Your task to perform on an android device: check google app version Image 0: 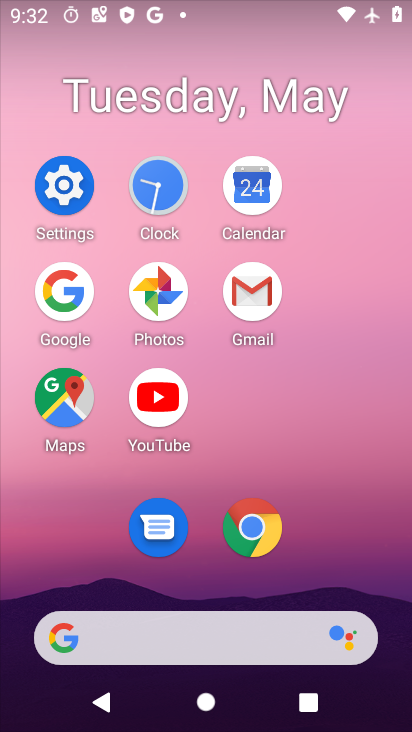
Step 0: click (76, 291)
Your task to perform on an android device: check google app version Image 1: 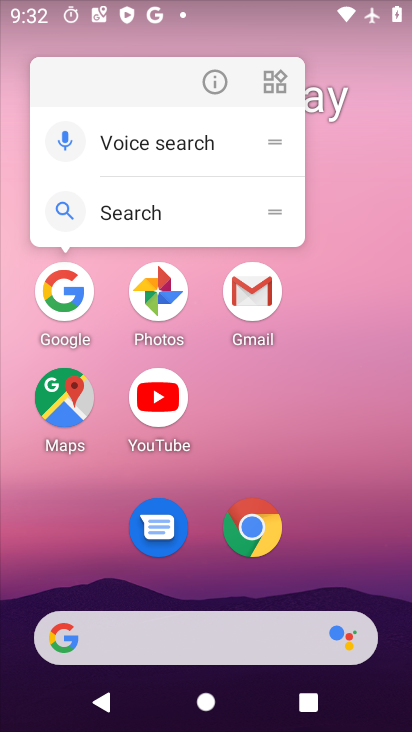
Step 1: click (226, 92)
Your task to perform on an android device: check google app version Image 2: 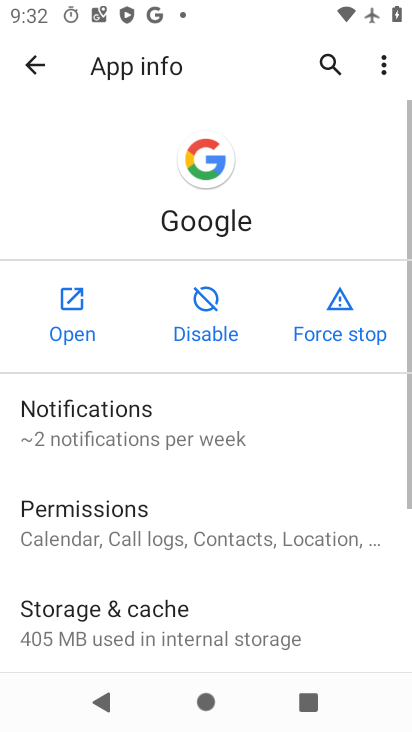
Step 2: drag from (324, 541) to (357, 149)
Your task to perform on an android device: check google app version Image 3: 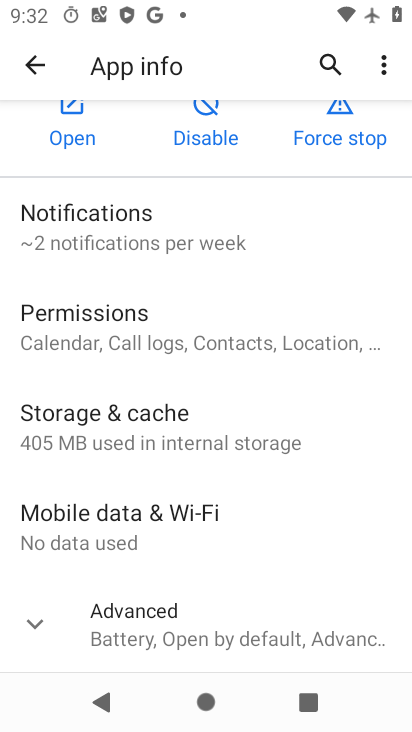
Step 3: click (299, 586)
Your task to perform on an android device: check google app version Image 4: 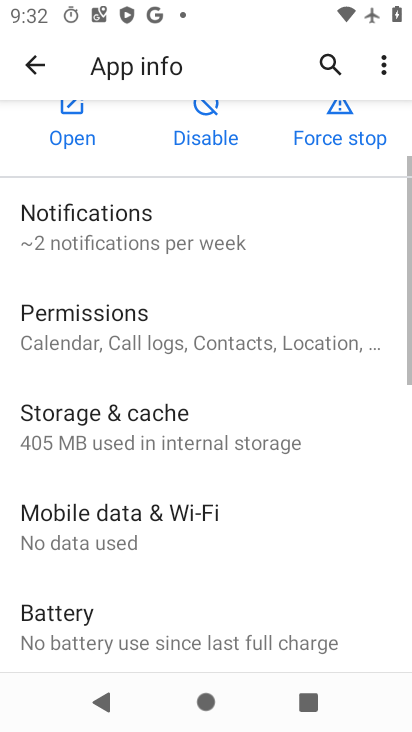
Step 4: task complete